Your task to perform on an android device: open app "DoorDash - Food Delivery" (install if not already installed) Image 0: 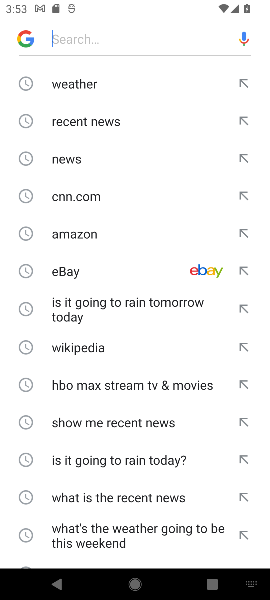
Step 0: press home button
Your task to perform on an android device: open app "DoorDash - Food Delivery" (install if not already installed) Image 1: 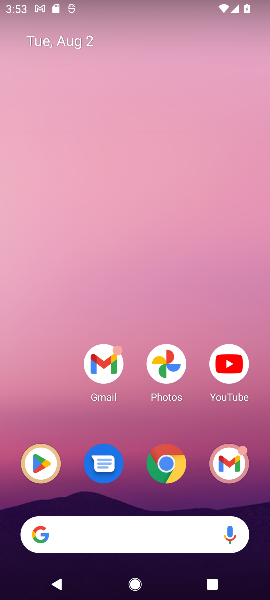
Step 1: click (40, 460)
Your task to perform on an android device: open app "DoorDash - Food Delivery" (install if not already installed) Image 2: 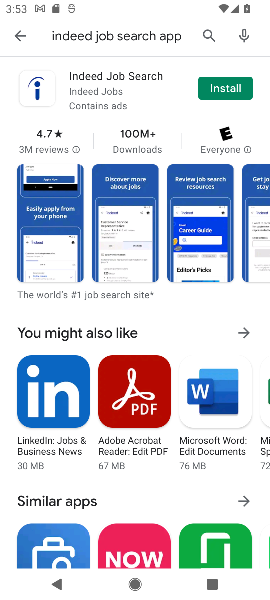
Step 2: click (203, 30)
Your task to perform on an android device: open app "DoorDash - Food Delivery" (install if not already installed) Image 3: 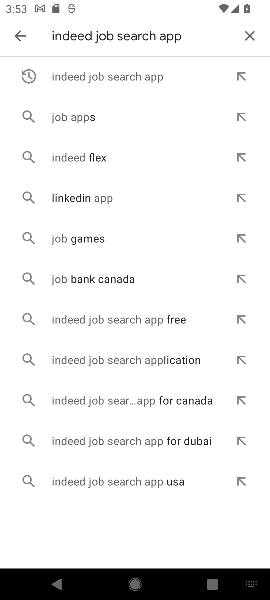
Step 3: click (253, 32)
Your task to perform on an android device: open app "DoorDash - Food Delivery" (install if not already installed) Image 4: 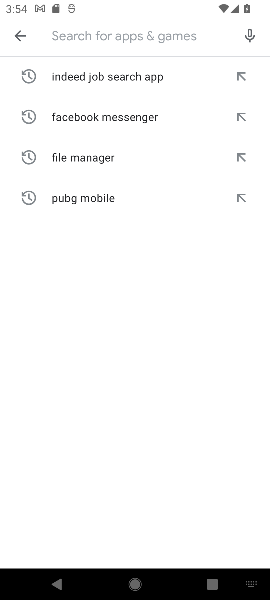
Step 4: type "DoorDash - Food Delivery"
Your task to perform on an android device: open app "DoorDash - Food Delivery" (install if not already installed) Image 5: 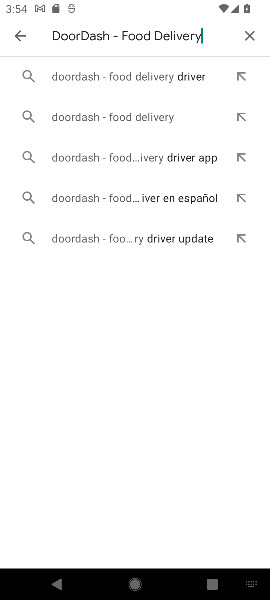
Step 5: click (131, 76)
Your task to perform on an android device: open app "DoorDash - Food Delivery" (install if not already installed) Image 6: 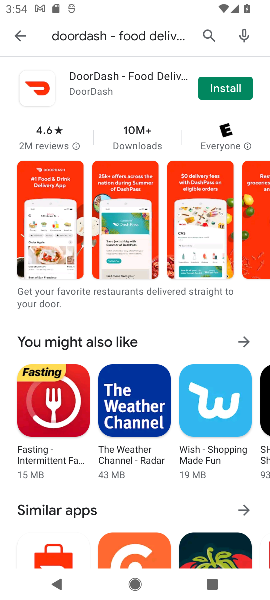
Step 6: click (226, 88)
Your task to perform on an android device: open app "DoorDash - Food Delivery" (install if not already installed) Image 7: 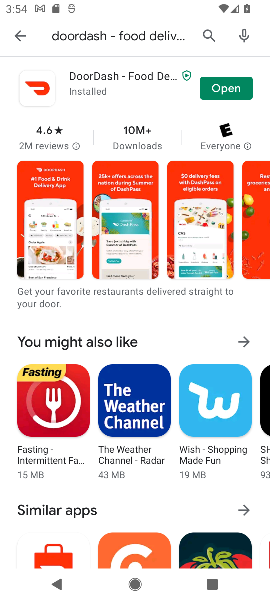
Step 7: click (234, 84)
Your task to perform on an android device: open app "DoorDash - Food Delivery" (install if not already installed) Image 8: 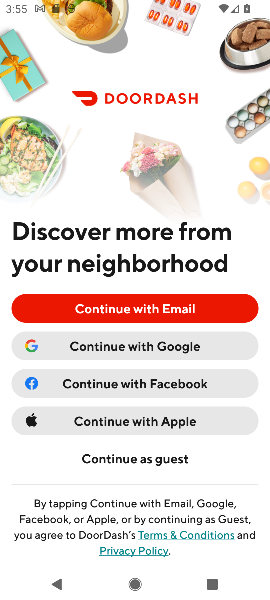
Step 8: task complete